Your task to perform on an android device: Open location settings Image 0: 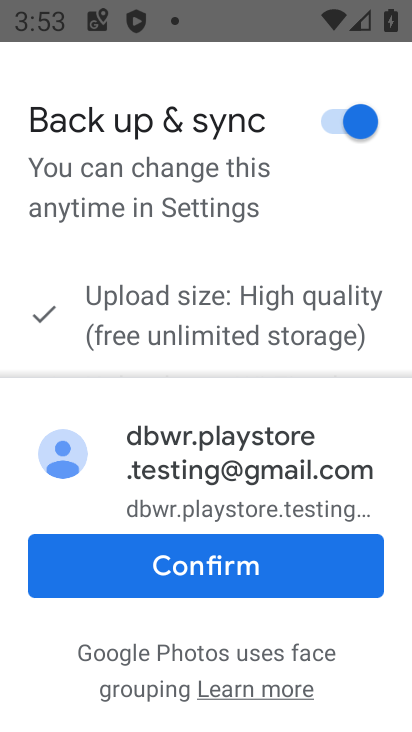
Step 0: press home button
Your task to perform on an android device: Open location settings Image 1: 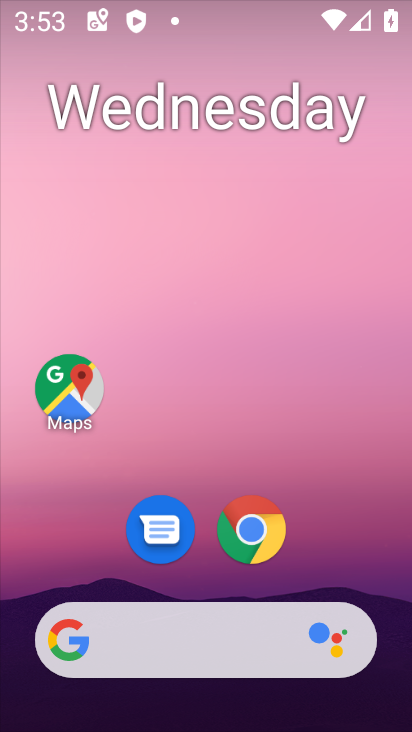
Step 1: drag from (319, 530) to (351, 171)
Your task to perform on an android device: Open location settings Image 2: 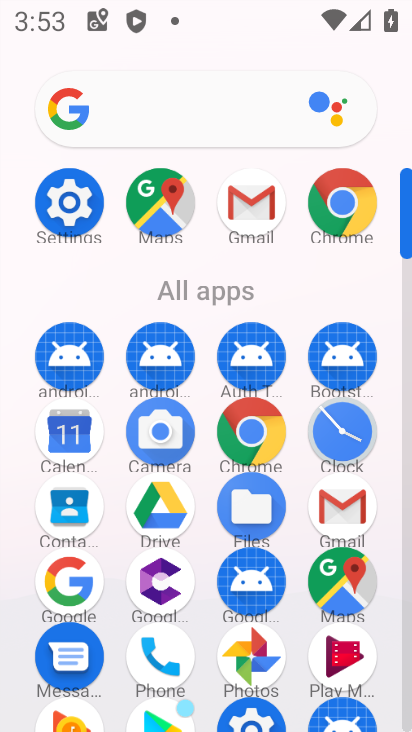
Step 2: click (82, 220)
Your task to perform on an android device: Open location settings Image 3: 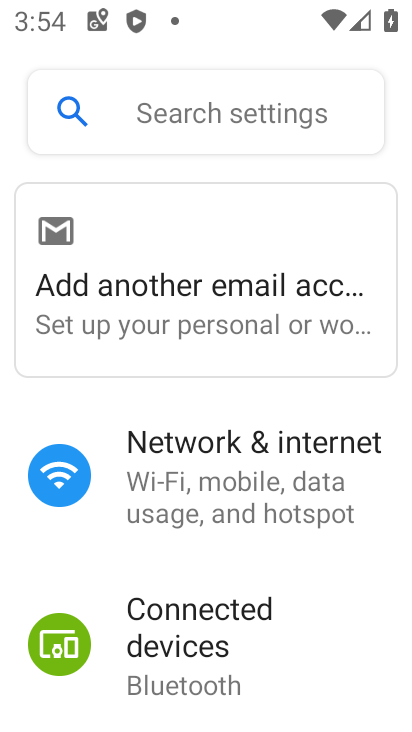
Step 3: drag from (180, 605) to (214, 221)
Your task to perform on an android device: Open location settings Image 4: 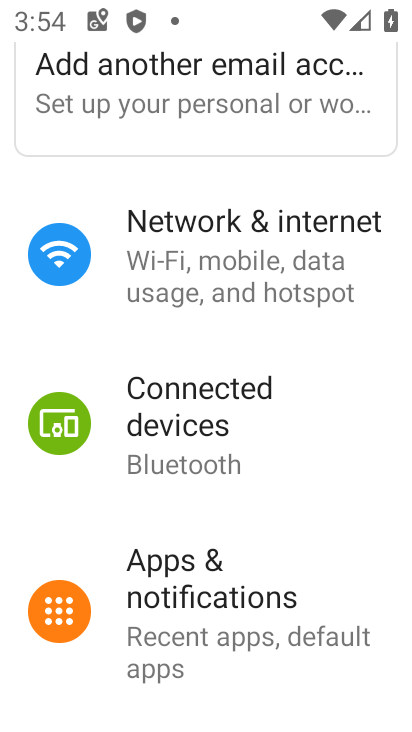
Step 4: drag from (195, 607) to (215, 312)
Your task to perform on an android device: Open location settings Image 5: 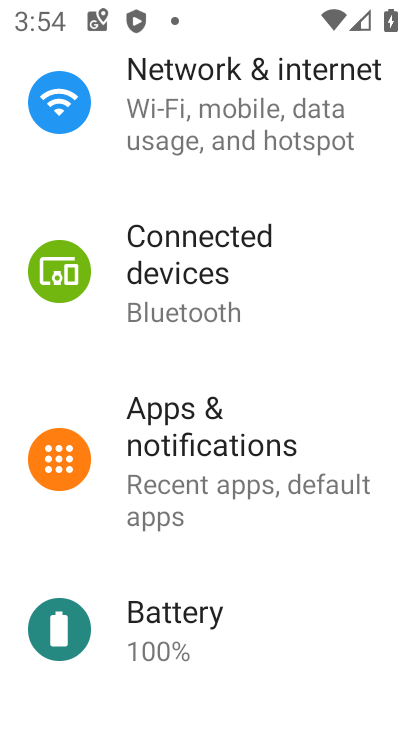
Step 5: drag from (209, 624) to (248, 236)
Your task to perform on an android device: Open location settings Image 6: 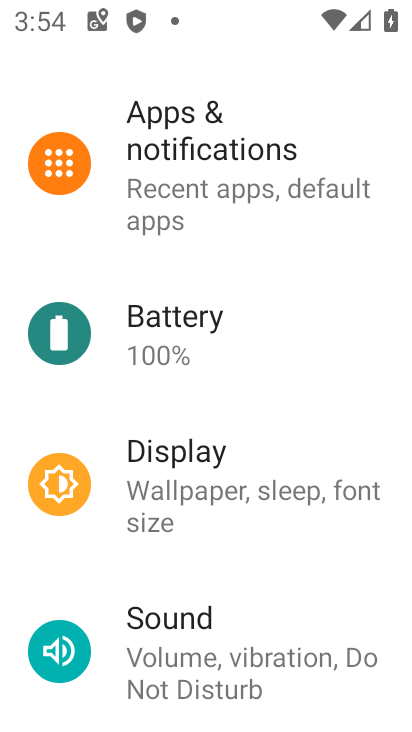
Step 6: drag from (271, 630) to (328, 262)
Your task to perform on an android device: Open location settings Image 7: 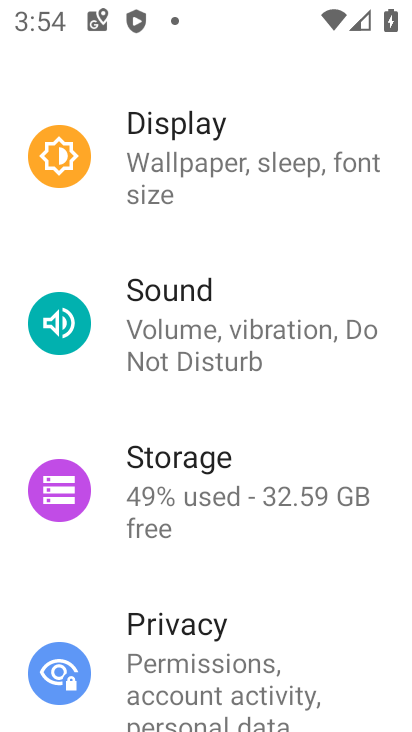
Step 7: drag from (276, 641) to (299, 252)
Your task to perform on an android device: Open location settings Image 8: 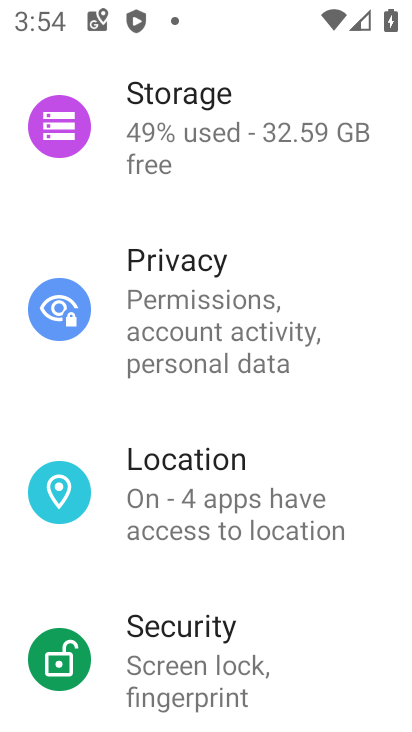
Step 8: click (266, 510)
Your task to perform on an android device: Open location settings Image 9: 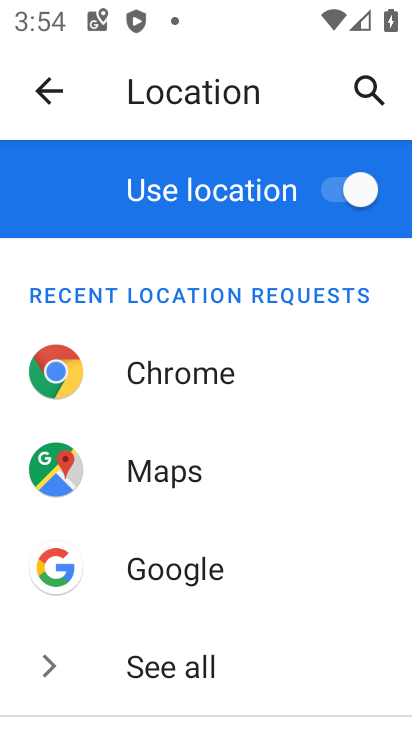
Step 9: task complete